Your task to perform on an android device: uninstall "PUBG MOBILE" Image 0: 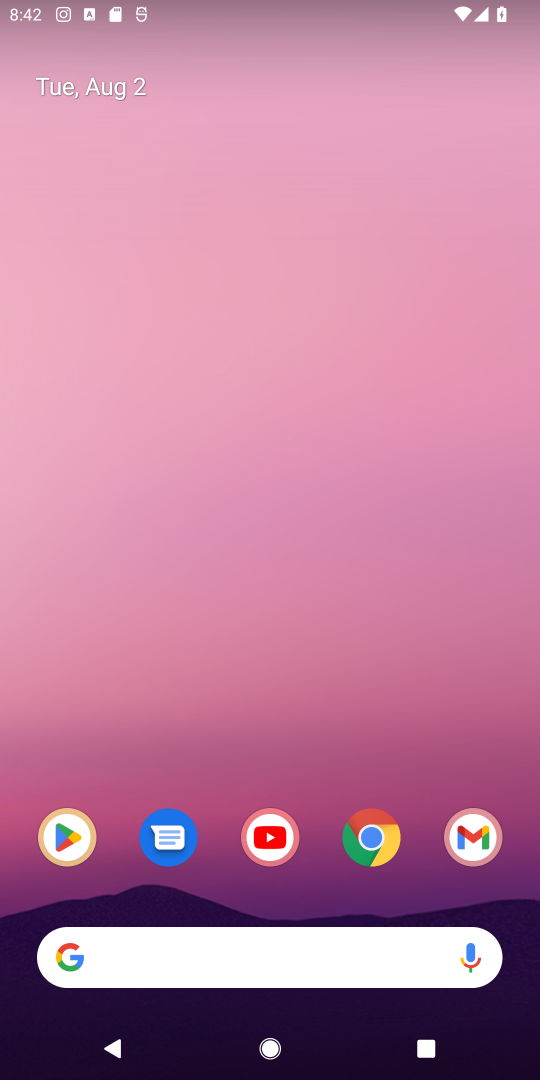
Step 0: click (88, 837)
Your task to perform on an android device: uninstall "PUBG MOBILE" Image 1: 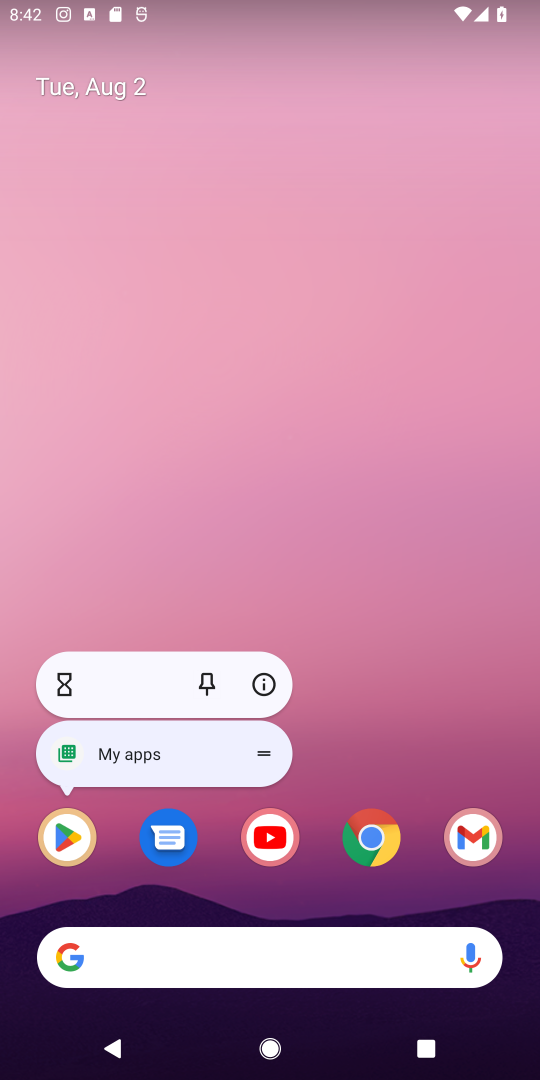
Step 1: click (64, 841)
Your task to perform on an android device: uninstall "PUBG MOBILE" Image 2: 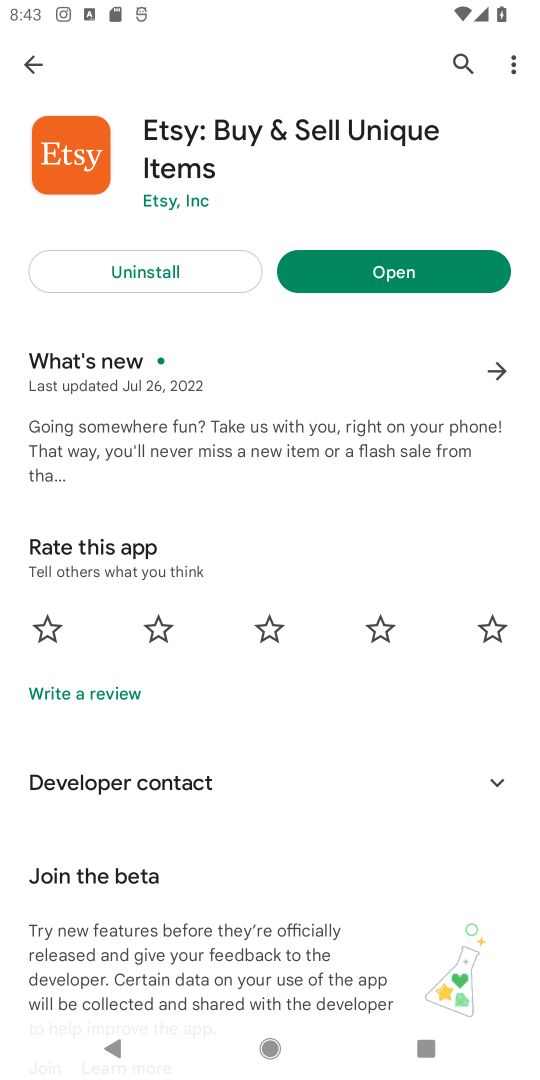
Step 2: click (456, 65)
Your task to perform on an android device: uninstall "PUBG MOBILE" Image 3: 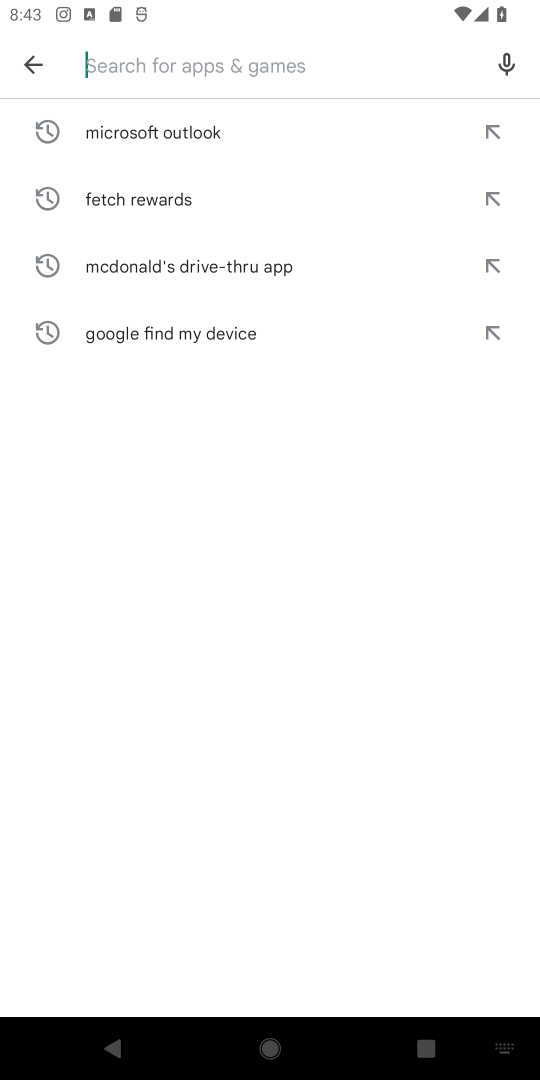
Step 3: type "PUBG MOBILE"
Your task to perform on an android device: uninstall "PUBG MOBILE" Image 4: 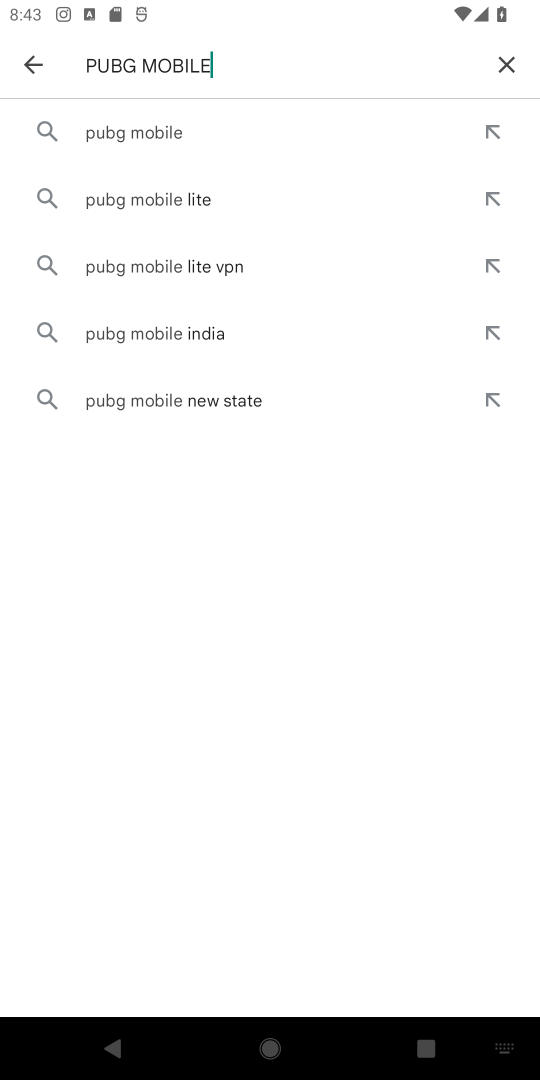
Step 4: click (128, 147)
Your task to perform on an android device: uninstall "PUBG MOBILE" Image 5: 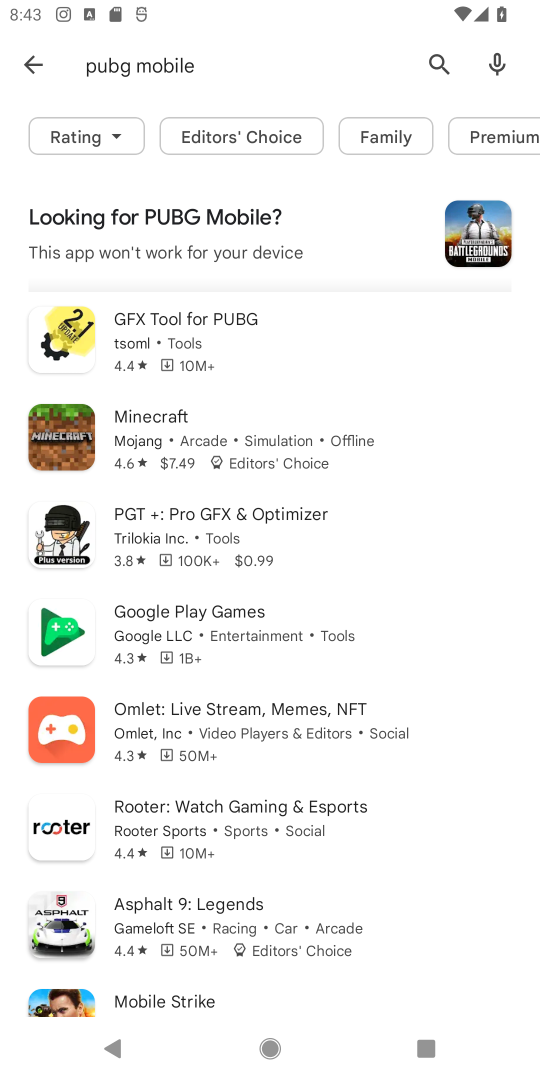
Step 5: click (456, 243)
Your task to perform on an android device: uninstall "PUBG MOBILE" Image 6: 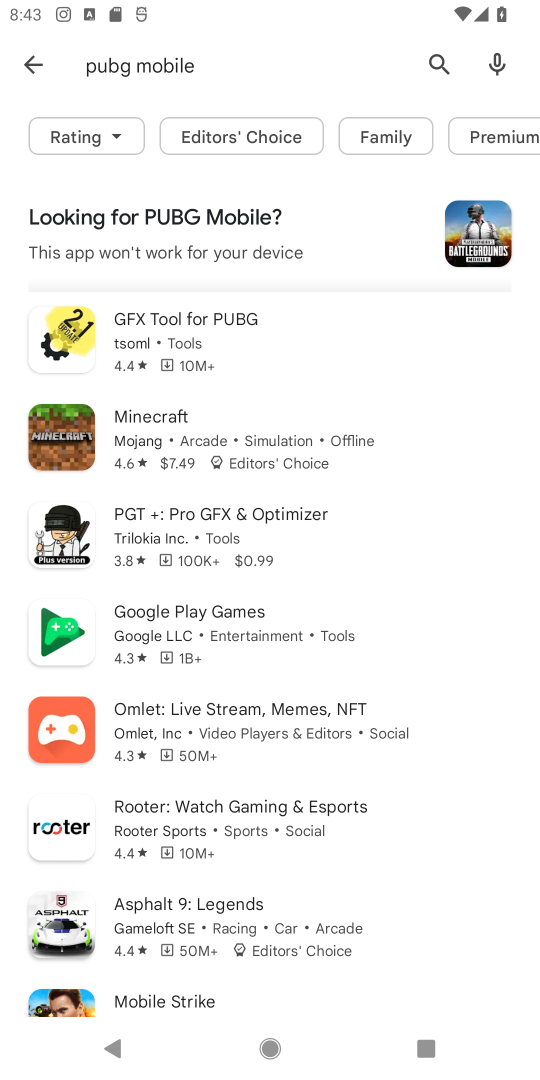
Step 6: click (484, 235)
Your task to perform on an android device: uninstall "PUBG MOBILE" Image 7: 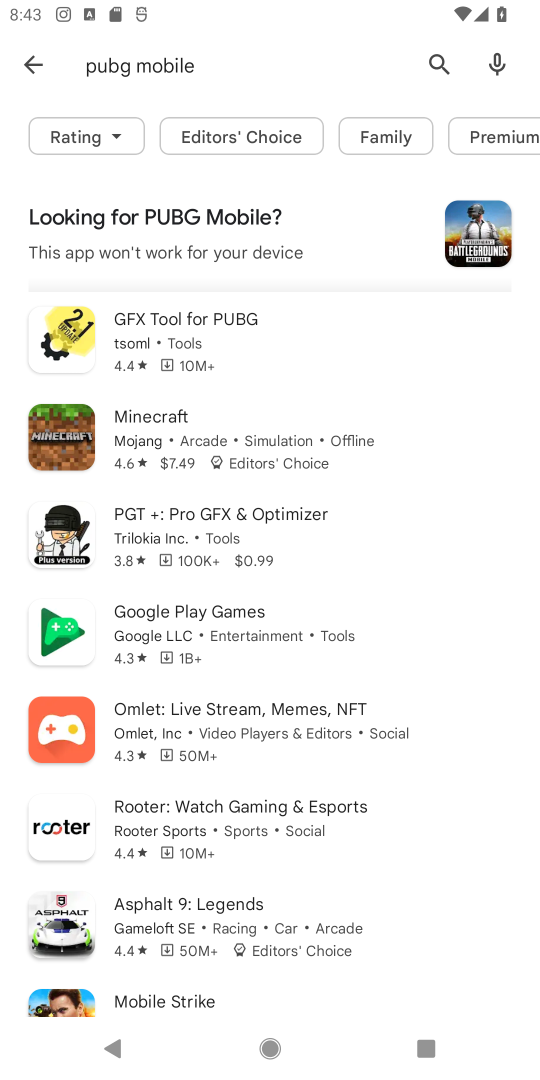
Step 7: click (225, 257)
Your task to perform on an android device: uninstall "PUBG MOBILE" Image 8: 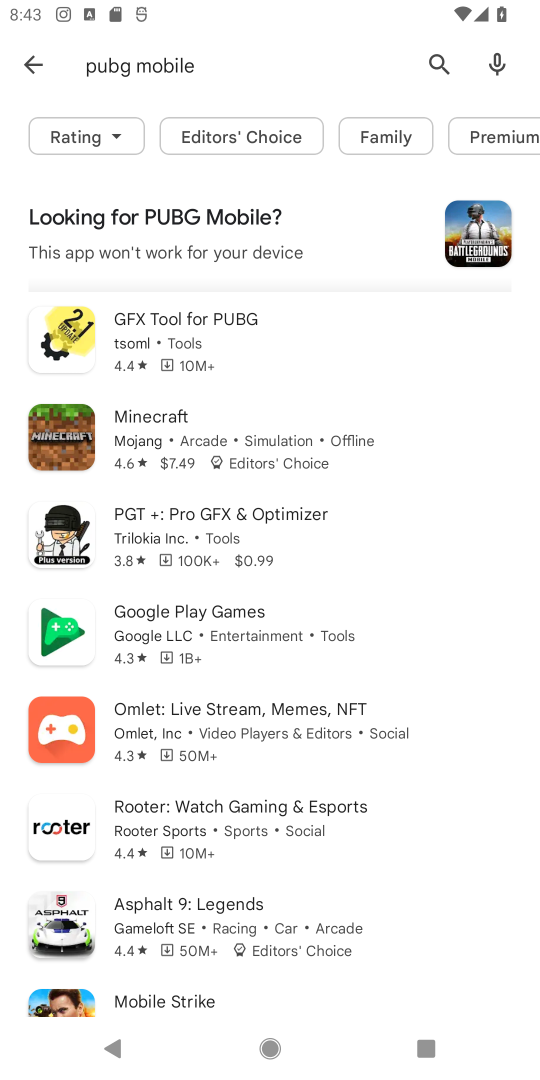
Step 8: click (185, 214)
Your task to perform on an android device: uninstall "PUBG MOBILE" Image 9: 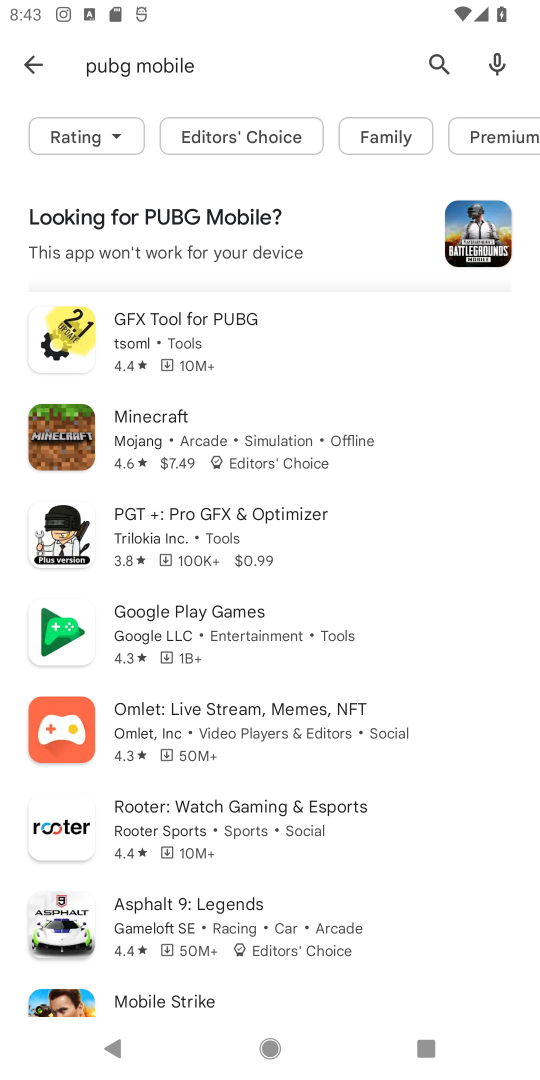
Step 9: task complete